Your task to perform on an android device: Show me the alarms in the clock app Image 0: 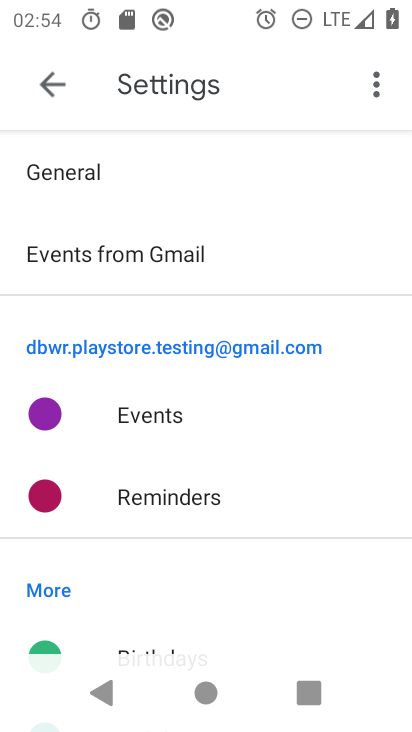
Step 0: press home button
Your task to perform on an android device: Show me the alarms in the clock app Image 1: 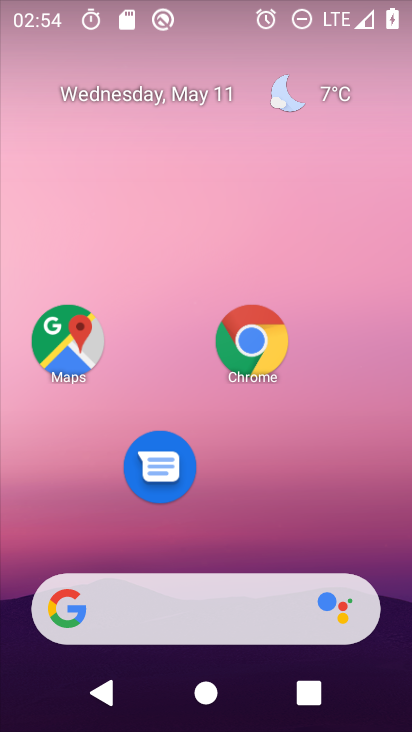
Step 1: drag from (164, 626) to (274, 266)
Your task to perform on an android device: Show me the alarms in the clock app Image 2: 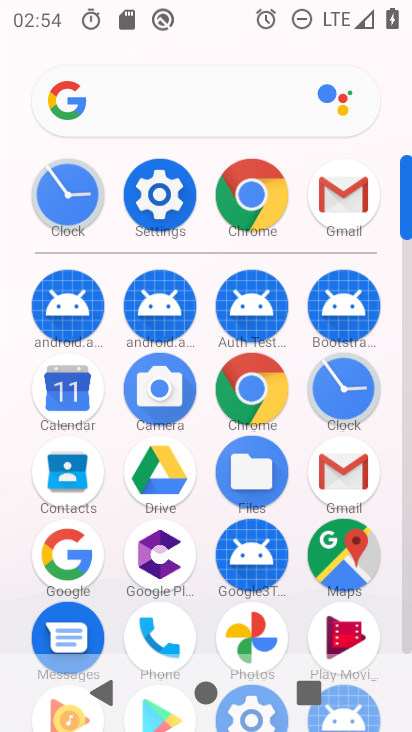
Step 2: click (333, 398)
Your task to perform on an android device: Show me the alarms in the clock app Image 3: 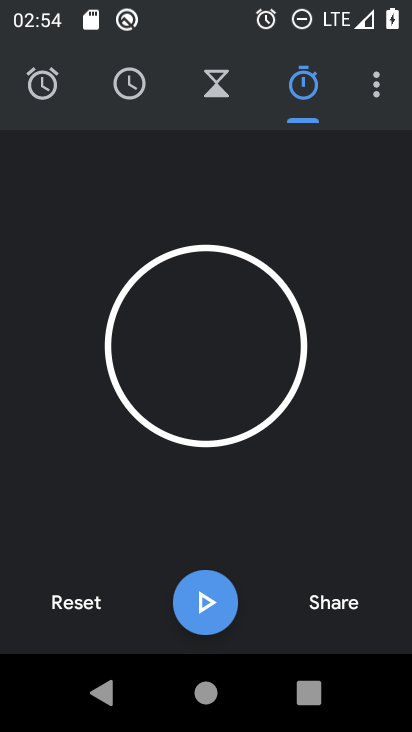
Step 3: click (42, 93)
Your task to perform on an android device: Show me the alarms in the clock app Image 4: 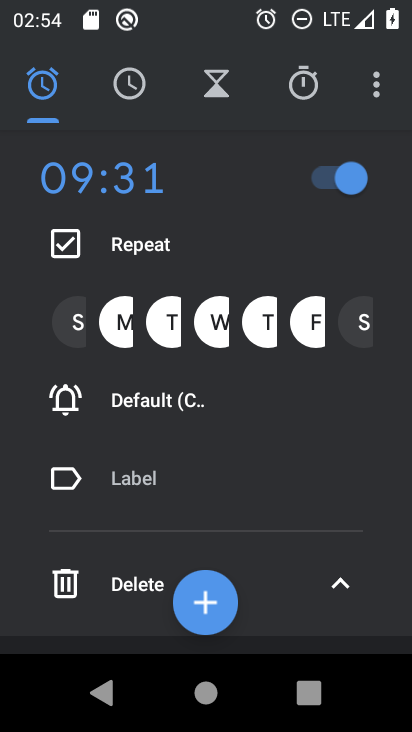
Step 4: task complete